Your task to perform on an android device: Do I have any events this weekend? Image 0: 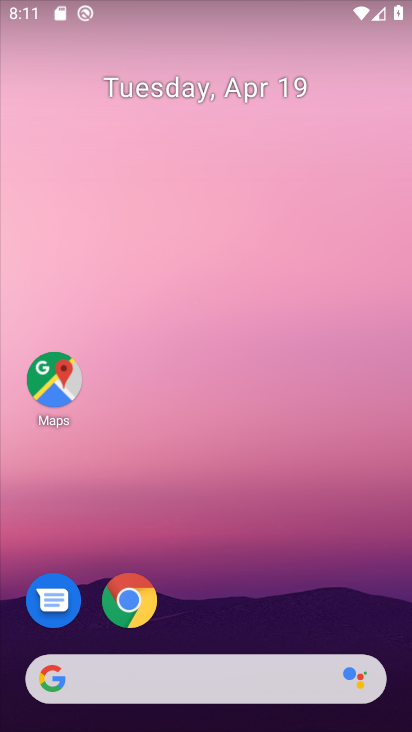
Step 0: drag from (364, 609) to (340, 136)
Your task to perform on an android device: Do I have any events this weekend? Image 1: 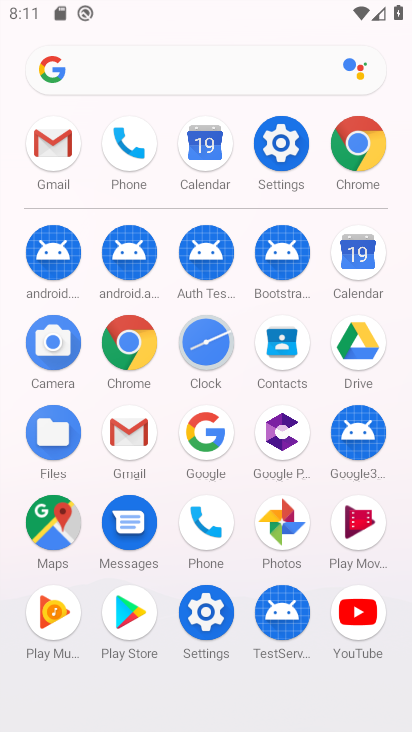
Step 1: click (376, 257)
Your task to perform on an android device: Do I have any events this weekend? Image 2: 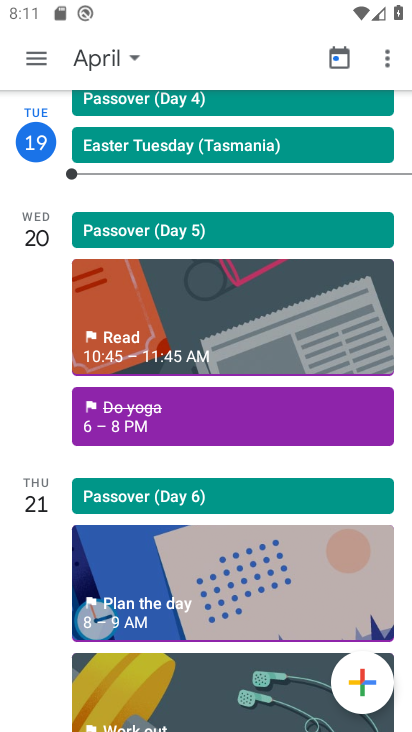
Step 2: click (134, 49)
Your task to perform on an android device: Do I have any events this weekend? Image 3: 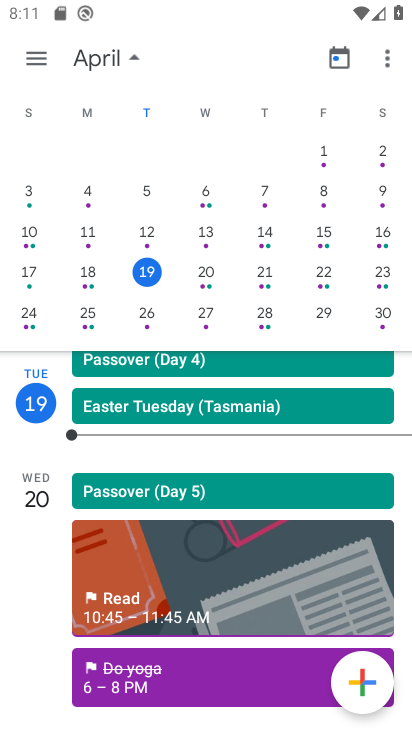
Step 3: click (384, 268)
Your task to perform on an android device: Do I have any events this weekend? Image 4: 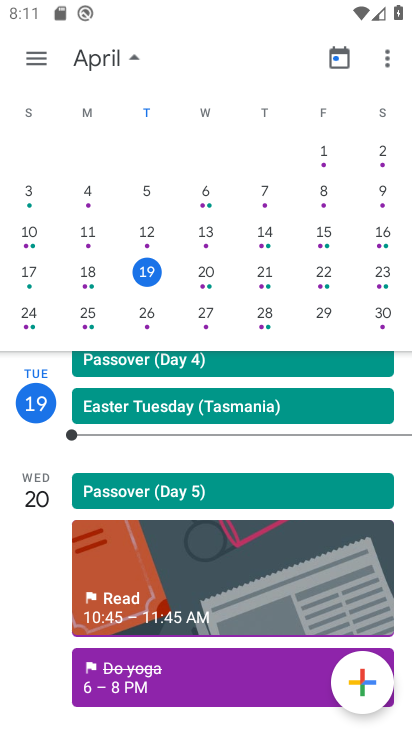
Step 4: click (388, 272)
Your task to perform on an android device: Do I have any events this weekend? Image 5: 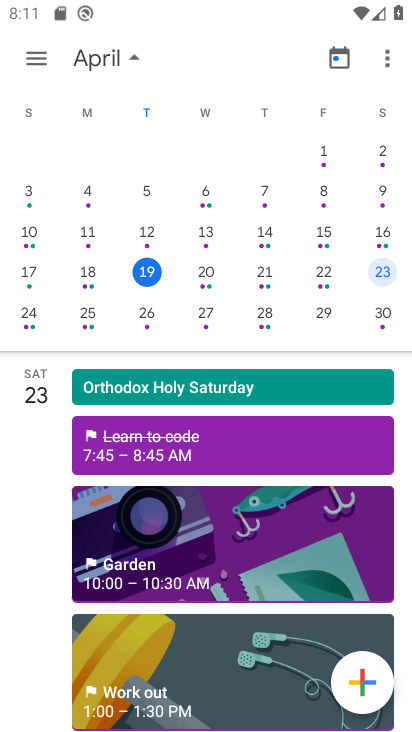
Step 5: click (378, 271)
Your task to perform on an android device: Do I have any events this weekend? Image 6: 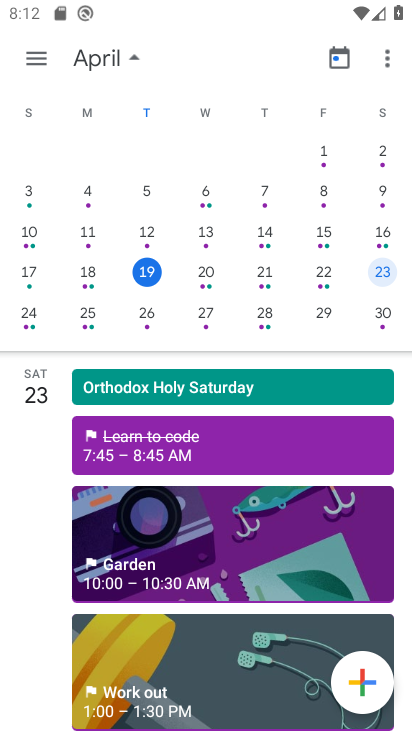
Step 6: click (192, 437)
Your task to perform on an android device: Do I have any events this weekend? Image 7: 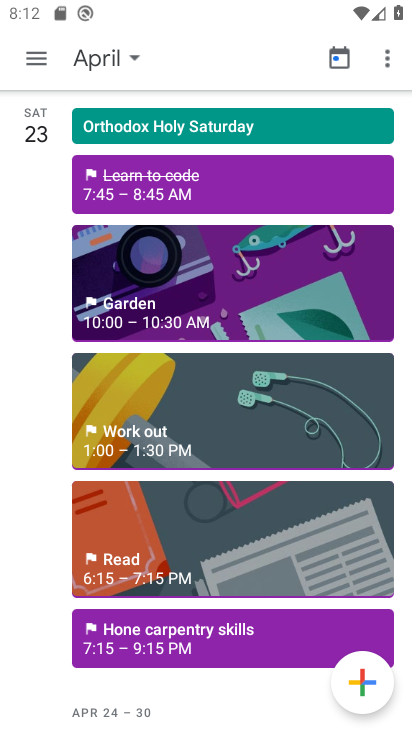
Step 7: task complete